Your task to perform on an android device: When is my next appointment? Image 0: 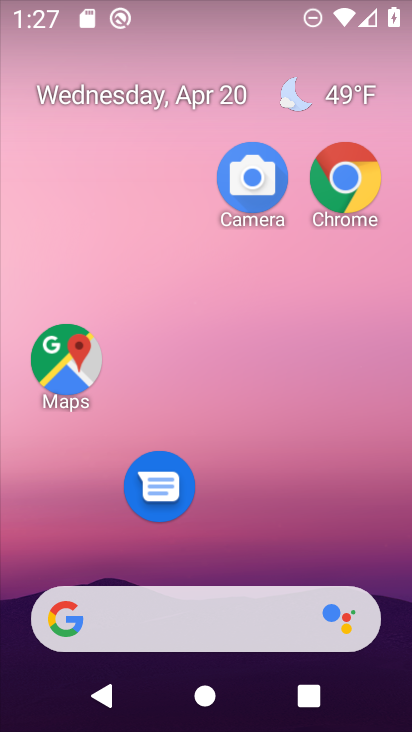
Step 0: drag from (245, 616) to (285, 62)
Your task to perform on an android device: When is my next appointment? Image 1: 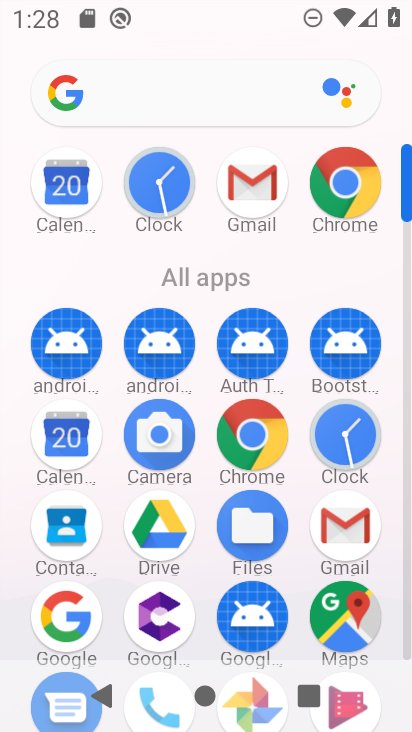
Step 1: click (63, 442)
Your task to perform on an android device: When is my next appointment? Image 2: 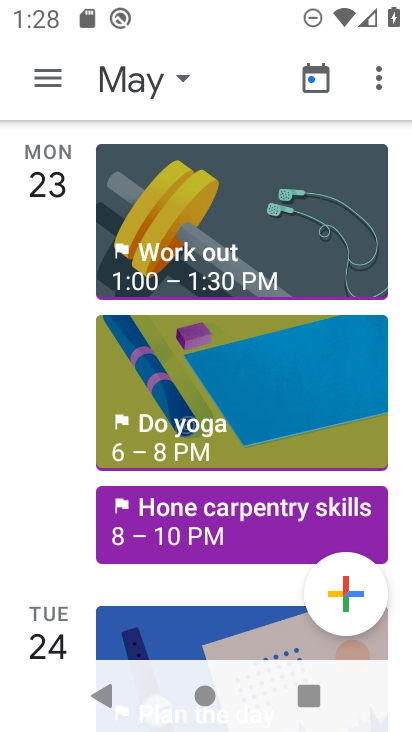
Step 2: click (52, 95)
Your task to perform on an android device: When is my next appointment? Image 3: 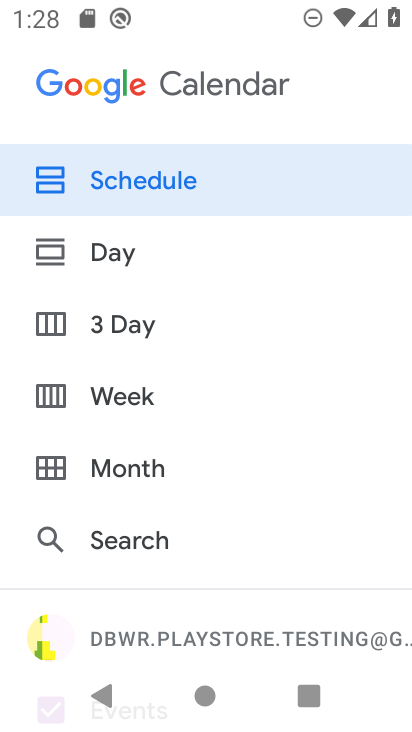
Step 3: click (88, 483)
Your task to perform on an android device: When is my next appointment? Image 4: 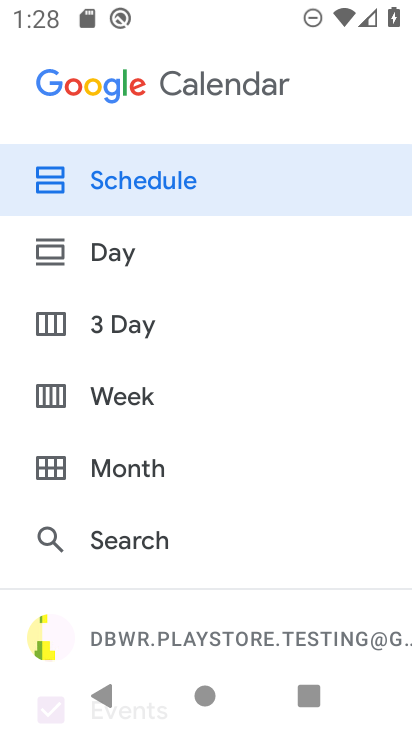
Step 4: click (105, 463)
Your task to perform on an android device: When is my next appointment? Image 5: 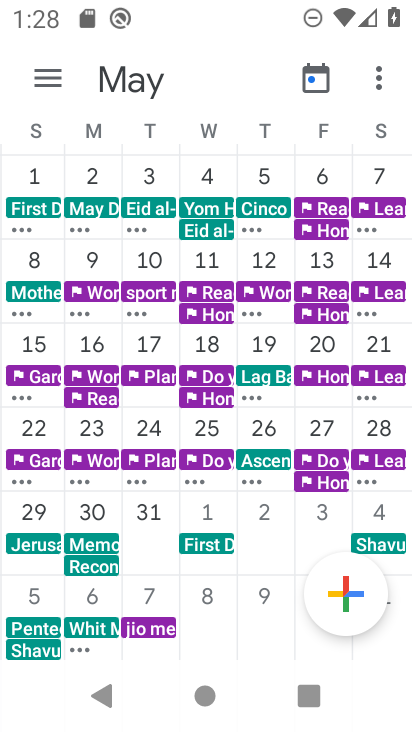
Step 5: drag from (84, 351) to (409, 284)
Your task to perform on an android device: When is my next appointment? Image 6: 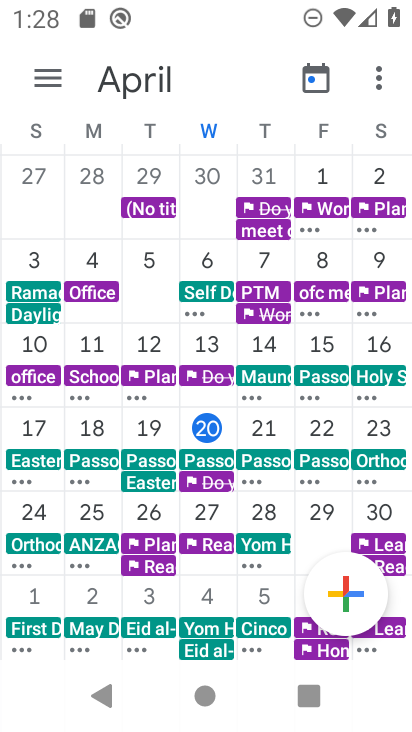
Step 6: click (36, 86)
Your task to perform on an android device: When is my next appointment? Image 7: 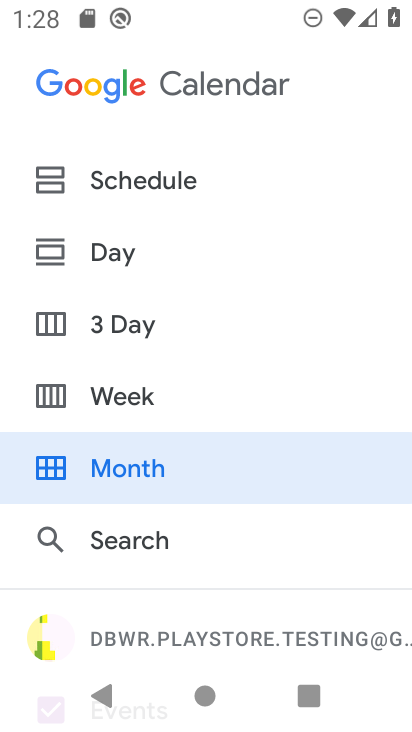
Step 7: click (118, 181)
Your task to perform on an android device: When is my next appointment? Image 8: 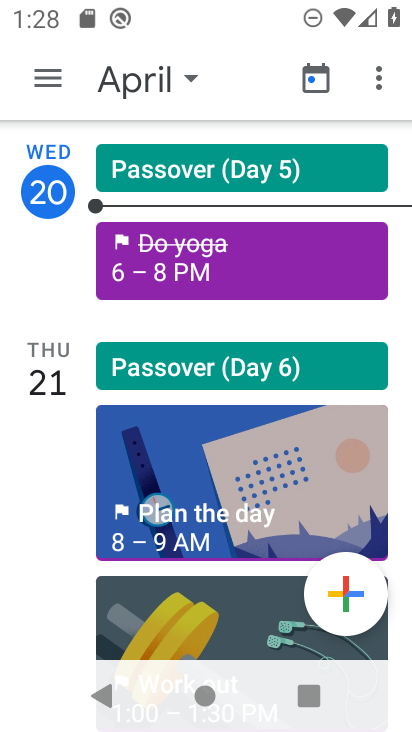
Step 8: task complete